Your task to perform on an android device: What's the weather? Image 0: 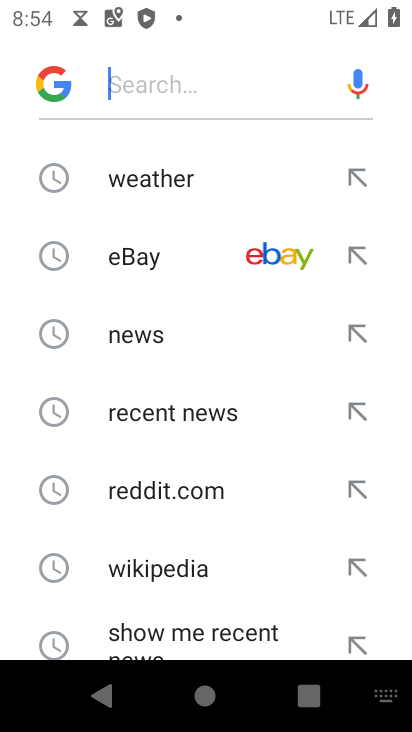
Step 0: press home button
Your task to perform on an android device: What's the weather? Image 1: 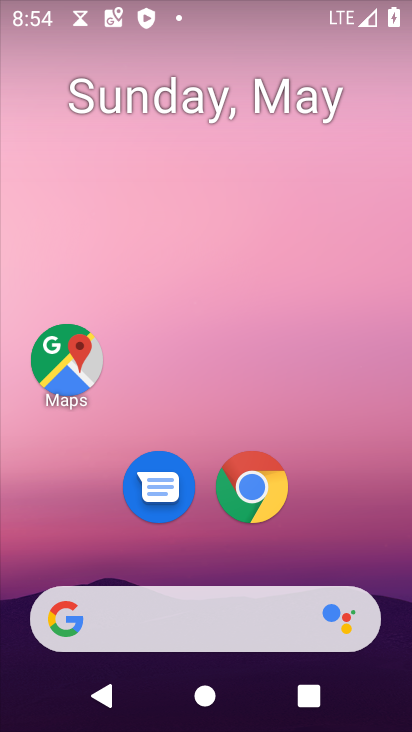
Step 1: click (63, 619)
Your task to perform on an android device: What's the weather? Image 2: 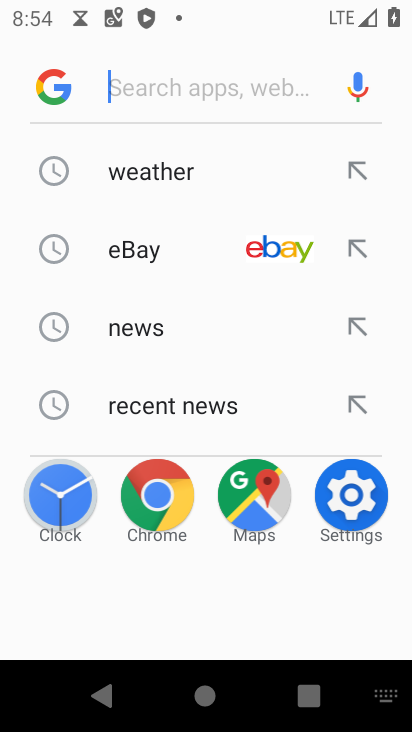
Step 2: click (50, 97)
Your task to perform on an android device: What's the weather? Image 3: 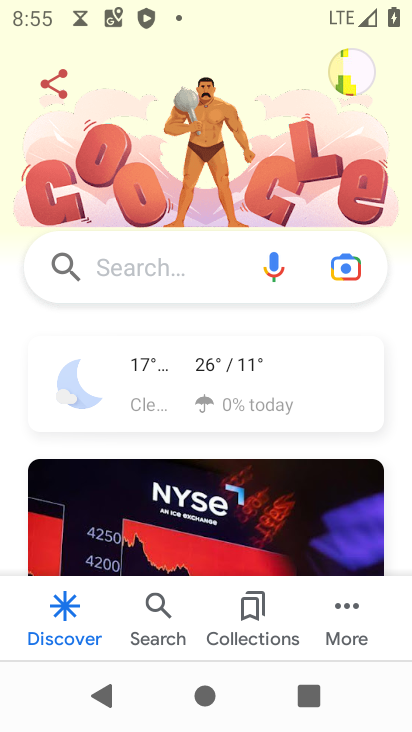
Step 3: click (205, 383)
Your task to perform on an android device: What's the weather? Image 4: 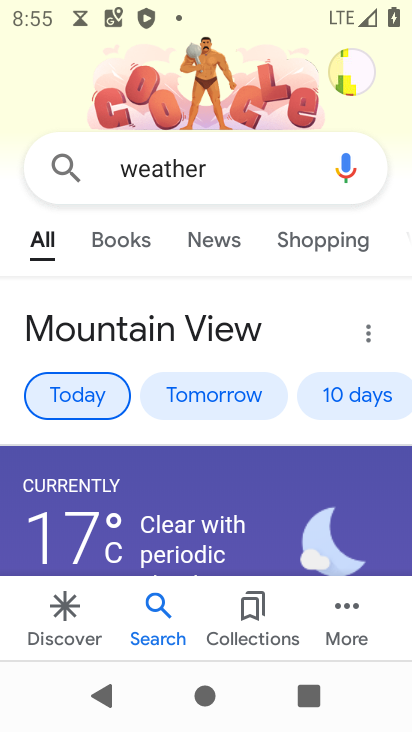
Step 4: task complete